Your task to perform on an android device: Go to wifi settings Image 0: 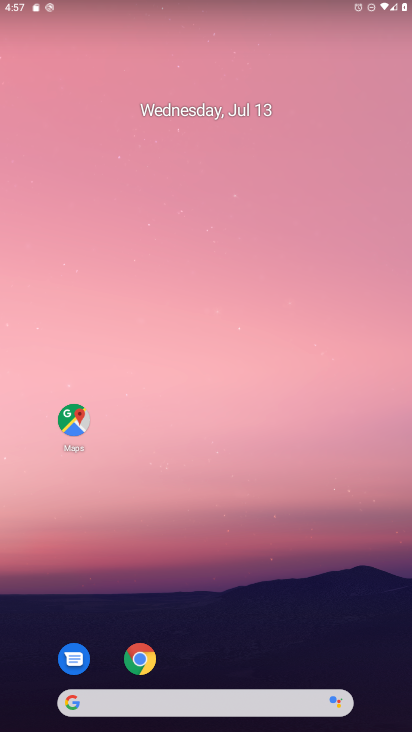
Step 0: drag from (278, 439) to (249, 154)
Your task to perform on an android device: Go to wifi settings Image 1: 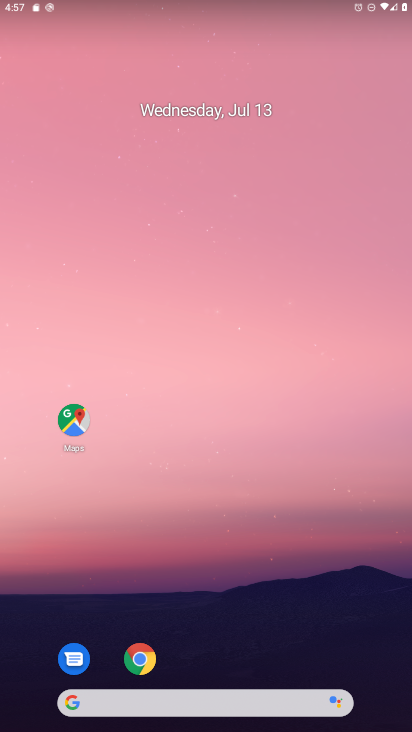
Step 1: drag from (279, 672) to (246, 202)
Your task to perform on an android device: Go to wifi settings Image 2: 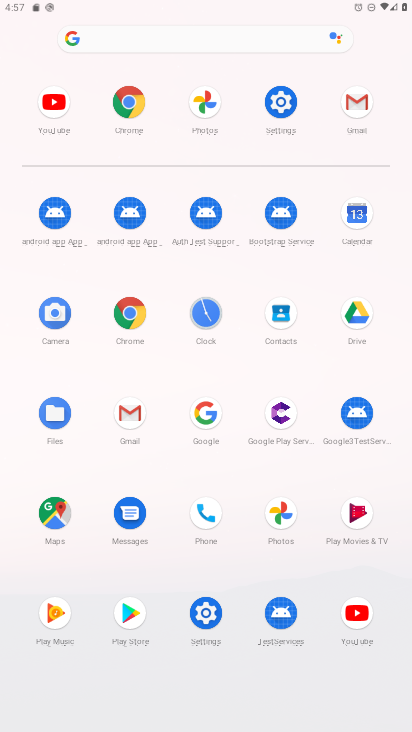
Step 2: click (276, 101)
Your task to perform on an android device: Go to wifi settings Image 3: 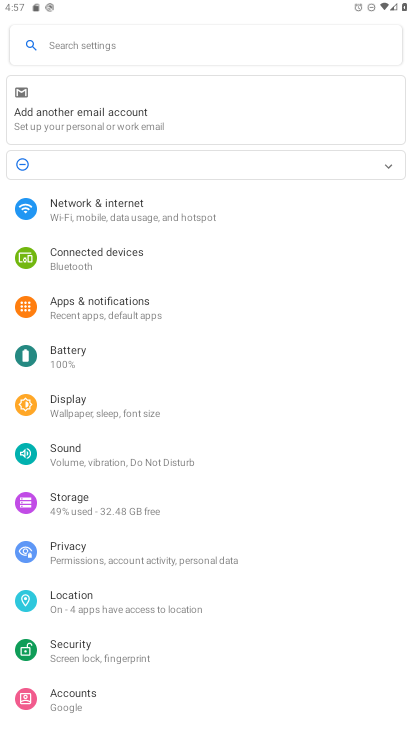
Step 3: click (103, 217)
Your task to perform on an android device: Go to wifi settings Image 4: 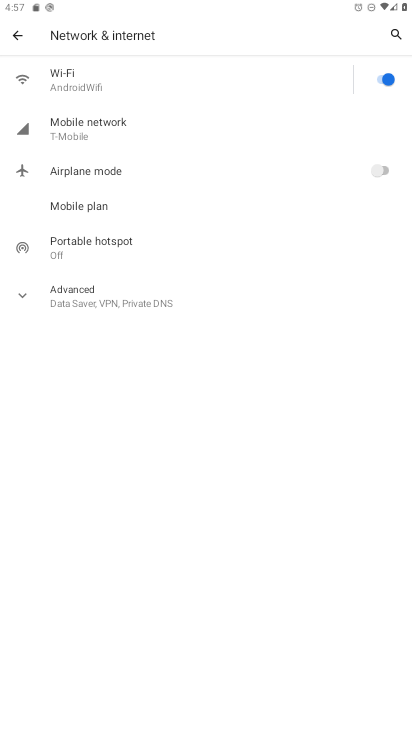
Step 4: click (66, 86)
Your task to perform on an android device: Go to wifi settings Image 5: 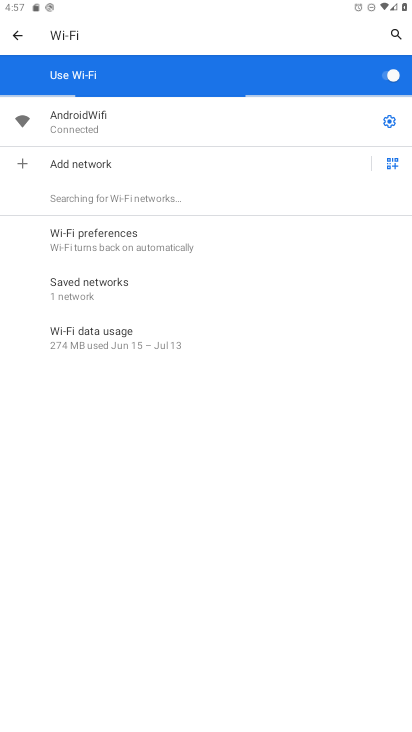
Step 5: click (398, 123)
Your task to perform on an android device: Go to wifi settings Image 6: 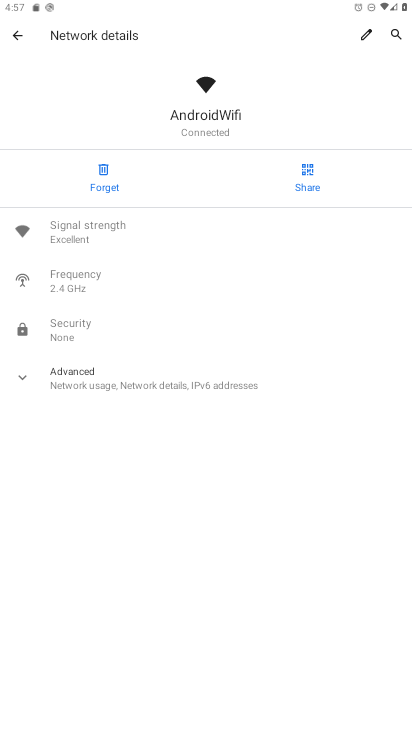
Step 6: task complete